Your task to perform on an android device: delete the emails in spam in the gmail app Image 0: 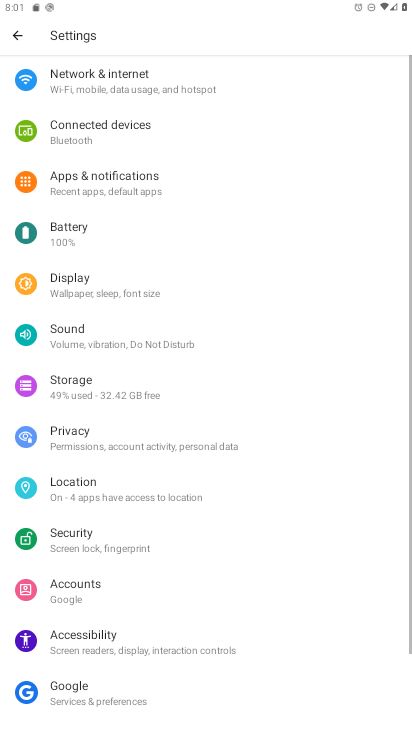
Step 0: press home button
Your task to perform on an android device: delete the emails in spam in the gmail app Image 1: 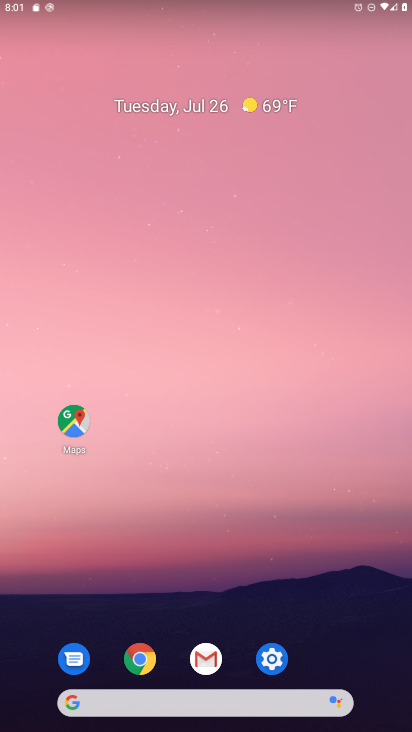
Step 1: click (206, 656)
Your task to perform on an android device: delete the emails in spam in the gmail app Image 2: 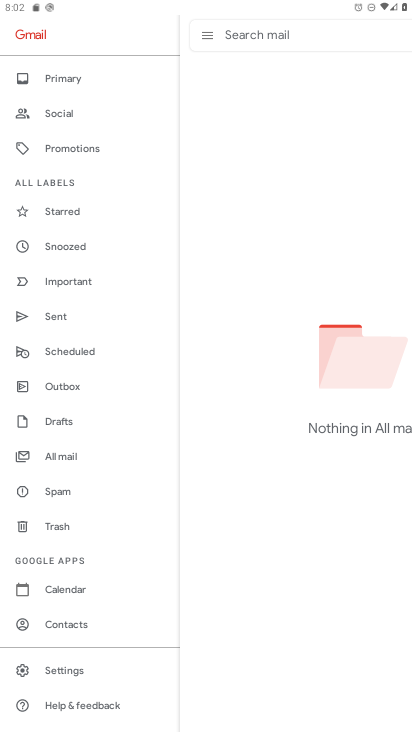
Step 2: click (57, 488)
Your task to perform on an android device: delete the emails in spam in the gmail app Image 3: 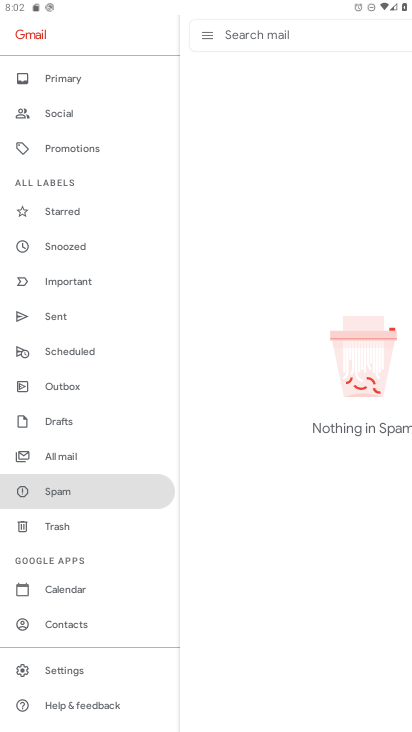
Step 3: task complete